Your task to perform on an android device: add a contact in the contacts app Image 0: 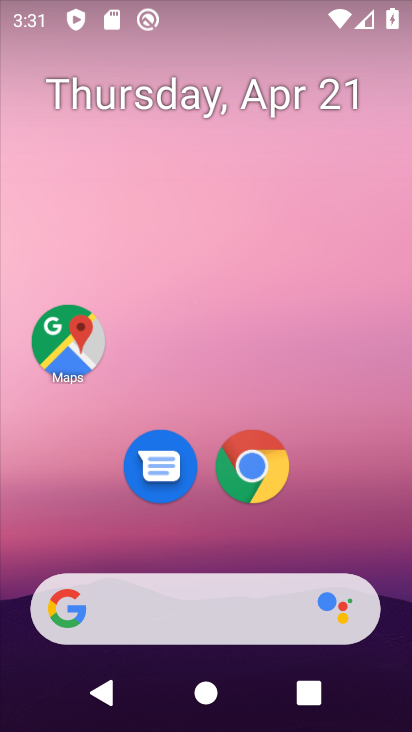
Step 0: drag from (214, 562) to (228, 167)
Your task to perform on an android device: add a contact in the contacts app Image 1: 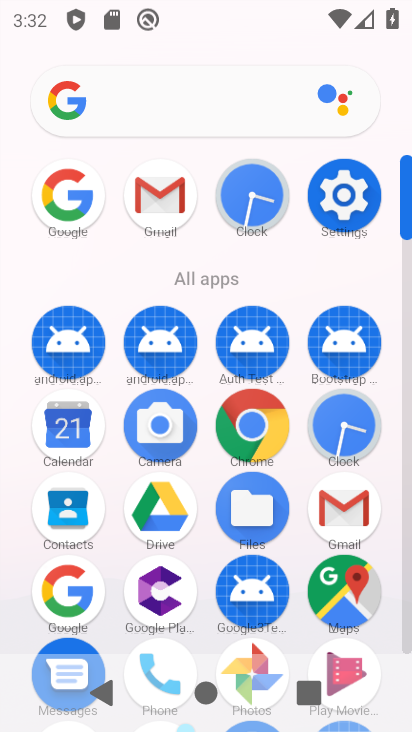
Step 1: click (69, 516)
Your task to perform on an android device: add a contact in the contacts app Image 2: 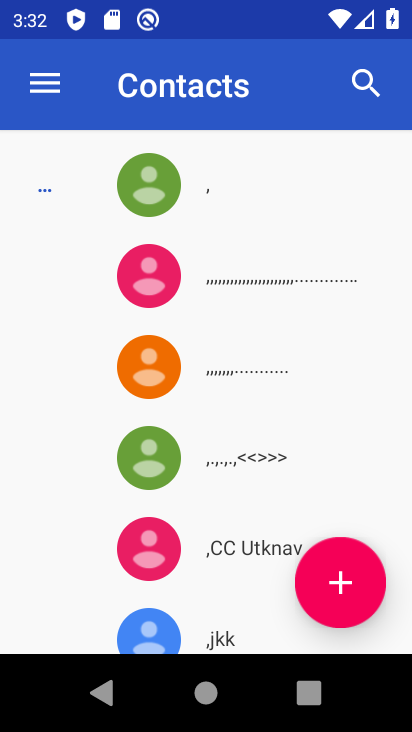
Step 2: click (333, 594)
Your task to perform on an android device: add a contact in the contacts app Image 3: 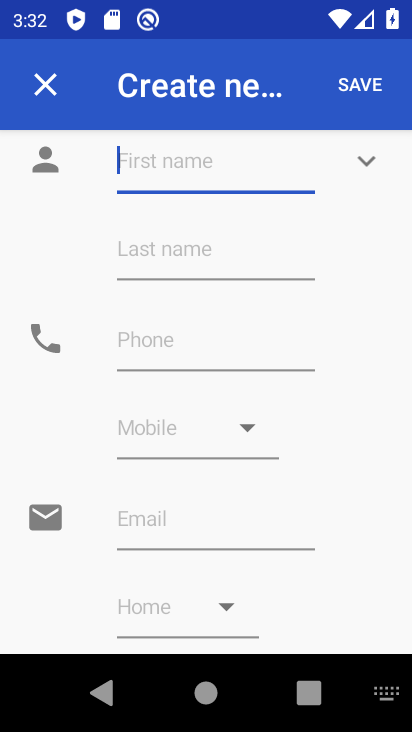
Step 3: type "gfbgfb"
Your task to perform on an android device: add a contact in the contacts app Image 4: 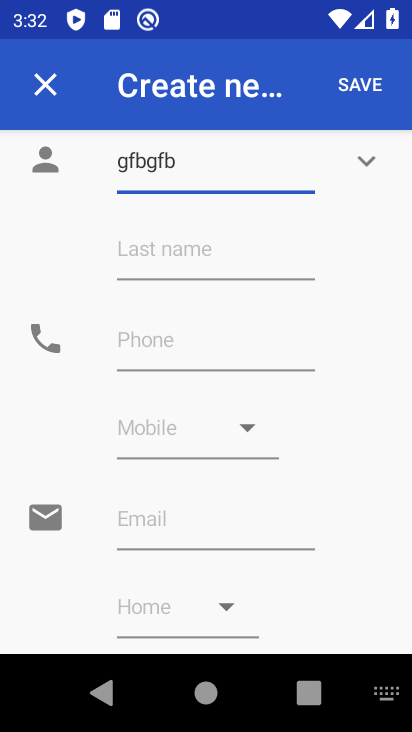
Step 4: click (184, 333)
Your task to perform on an android device: add a contact in the contacts app Image 5: 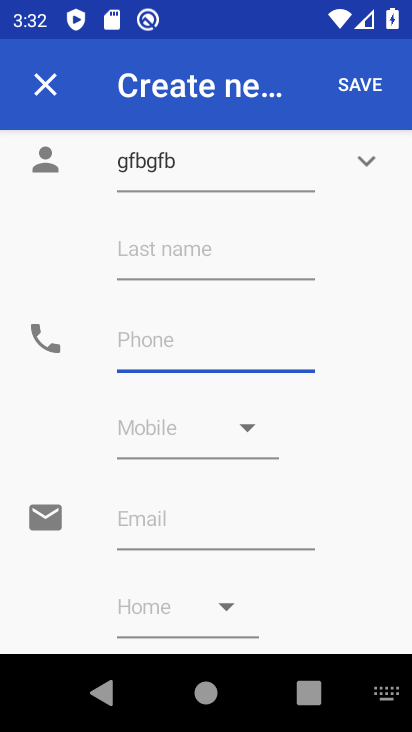
Step 5: type "976786754557"
Your task to perform on an android device: add a contact in the contacts app Image 6: 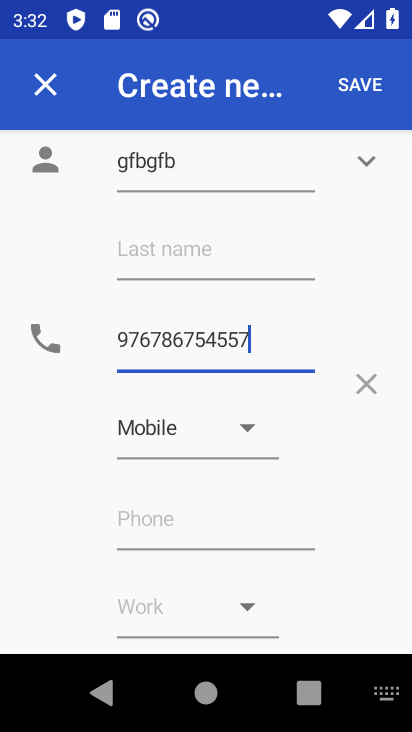
Step 6: click (370, 82)
Your task to perform on an android device: add a contact in the contacts app Image 7: 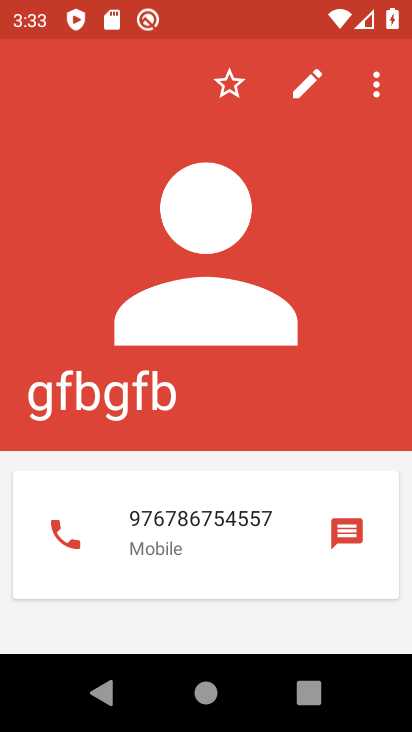
Step 7: task complete